Your task to perform on an android device: toggle airplane mode Image 0: 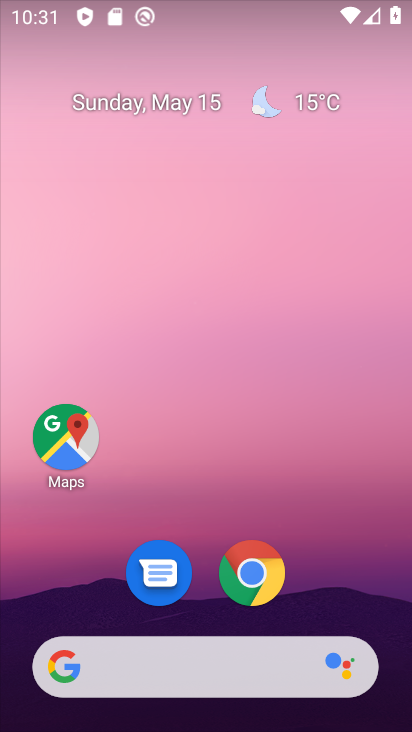
Step 0: click (180, 320)
Your task to perform on an android device: toggle airplane mode Image 1: 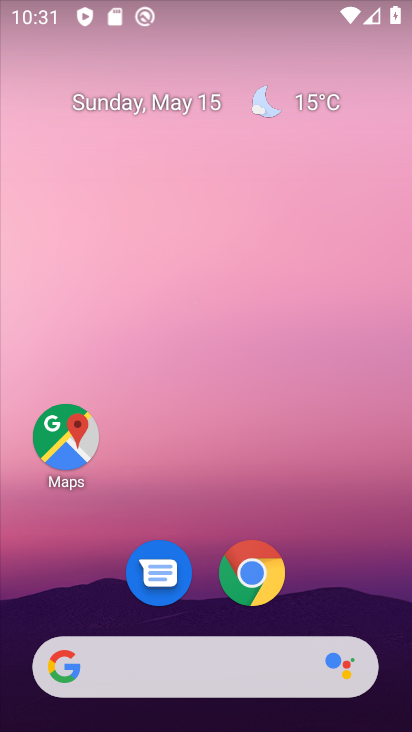
Step 1: drag from (86, 640) to (196, 147)
Your task to perform on an android device: toggle airplane mode Image 2: 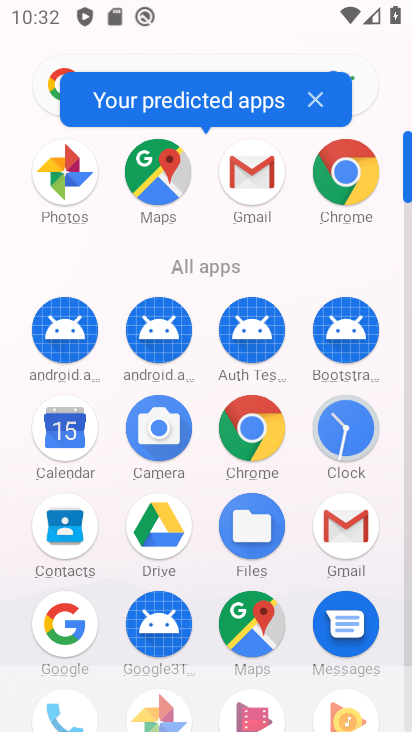
Step 2: drag from (188, 630) to (256, 374)
Your task to perform on an android device: toggle airplane mode Image 3: 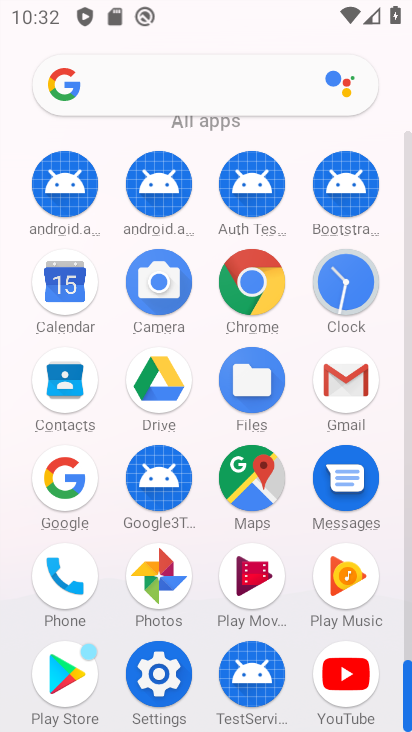
Step 3: click (172, 684)
Your task to perform on an android device: toggle airplane mode Image 4: 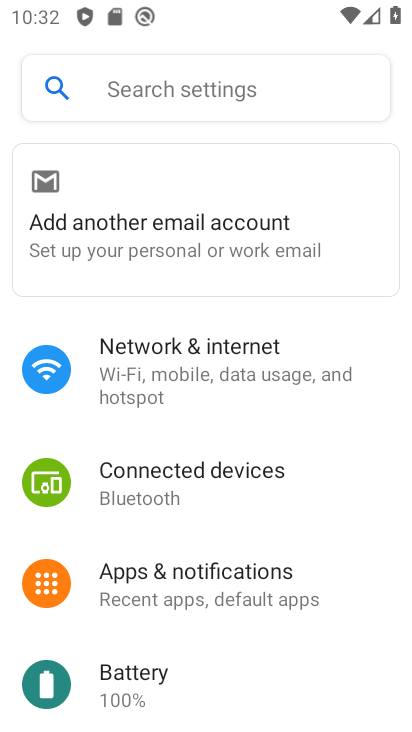
Step 4: click (295, 384)
Your task to perform on an android device: toggle airplane mode Image 5: 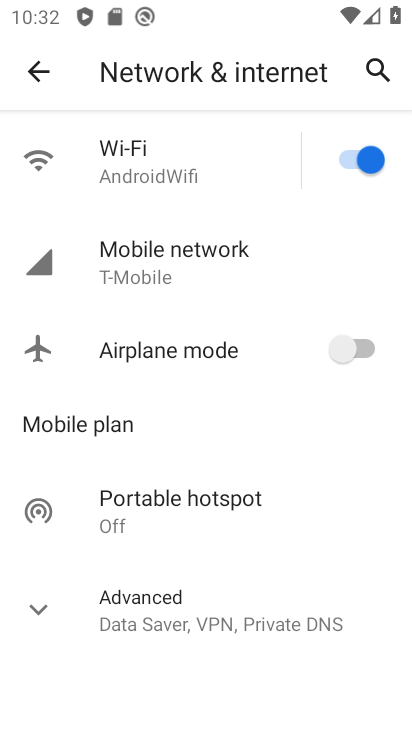
Step 5: click (371, 351)
Your task to perform on an android device: toggle airplane mode Image 6: 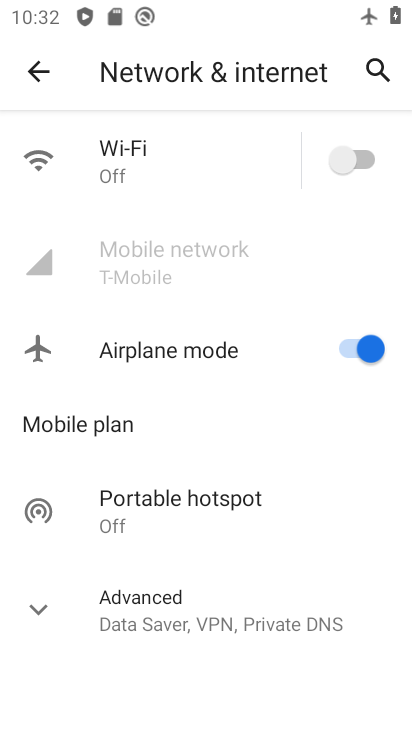
Step 6: task complete